Your task to perform on an android device: Open accessibility settings Image 0: 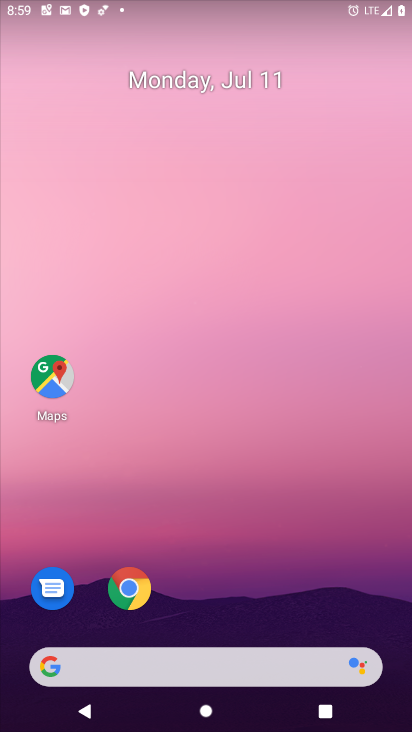
Step 0: drag from (159, 660) to (354, 65)
Your task to perform on an android device: Open accessibility settings Image 1: 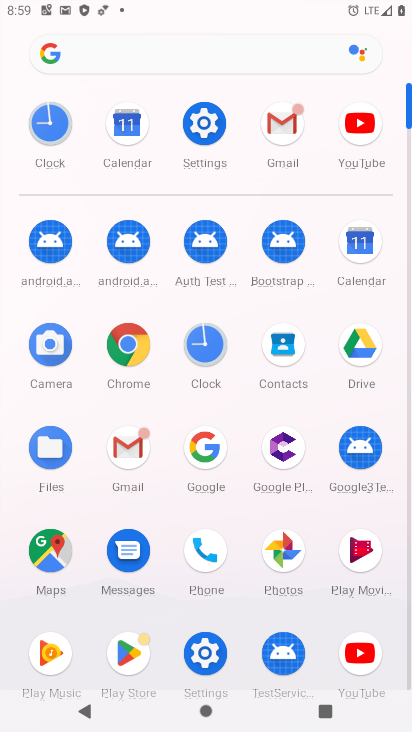
Step 1: click (202, 125)
Your task to perform on an android device: Open accessibility settings Image 2: 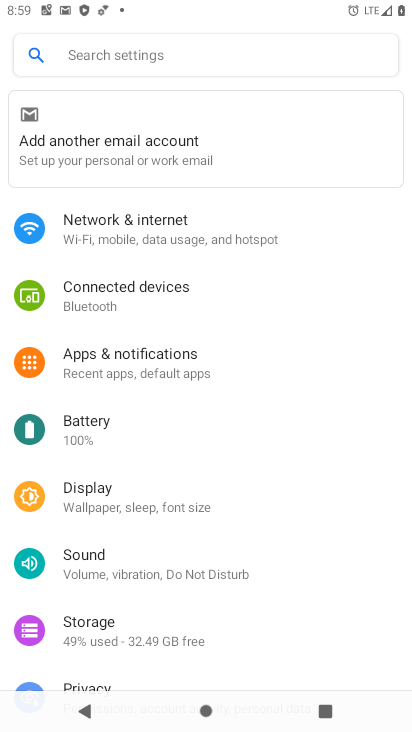
Step 2: drag from (244, 628) to (411, 134)
Your task to perform on an android device: Open accessibility settings Image 3: 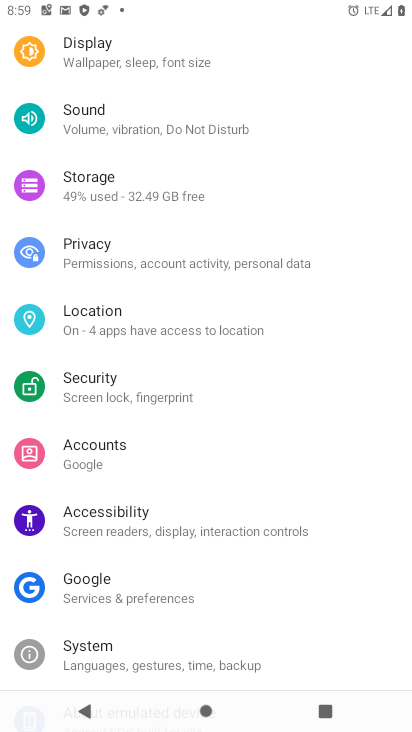
Step 3: click (143, 523)
Your task to perform on an android device: Open accessibility settings Image 4: 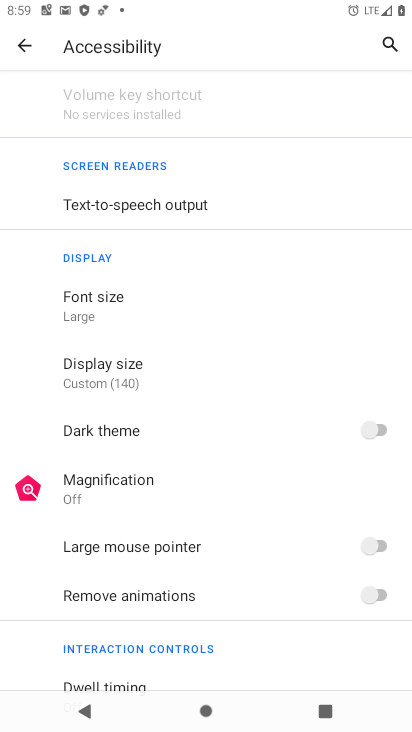
Step 4: task complete